Your task to perform on an android device: turn on bluetooth scan Image 0: 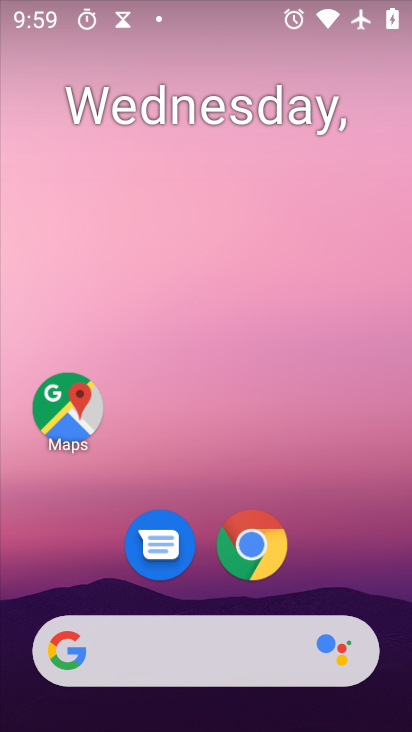
Step 0: press home button
Your task to perform on an android device: turn on bluetooth scan Image 1: 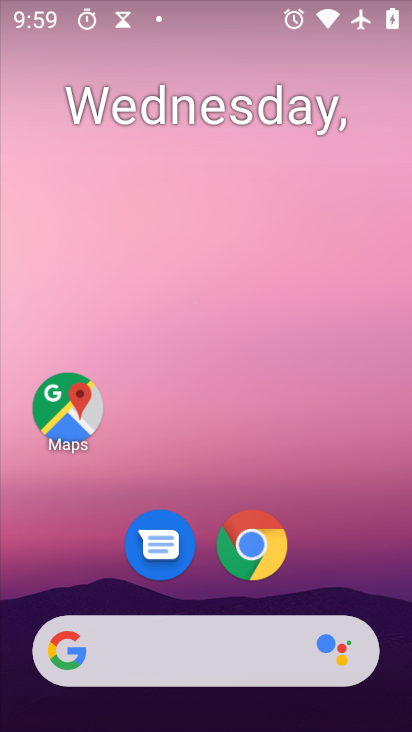
Step 1: drag from (173, 646) to (299, 120)
Your task to perform on an android device: turn on bluetooth scan Image 2: 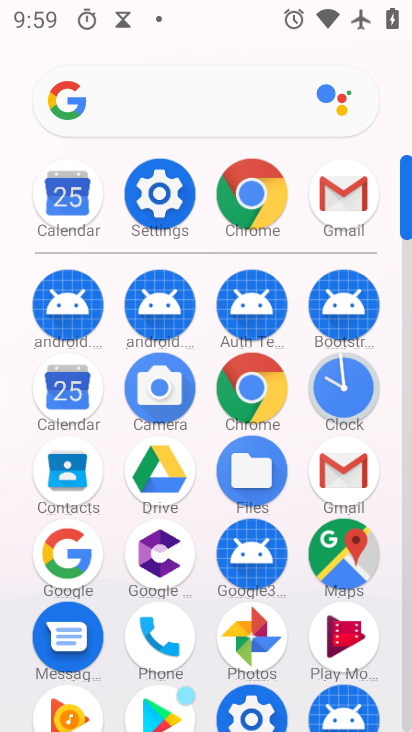
Step 2: click (168, 198)
Your task to perform on an android device: turn on bluetooth scan Image 3: 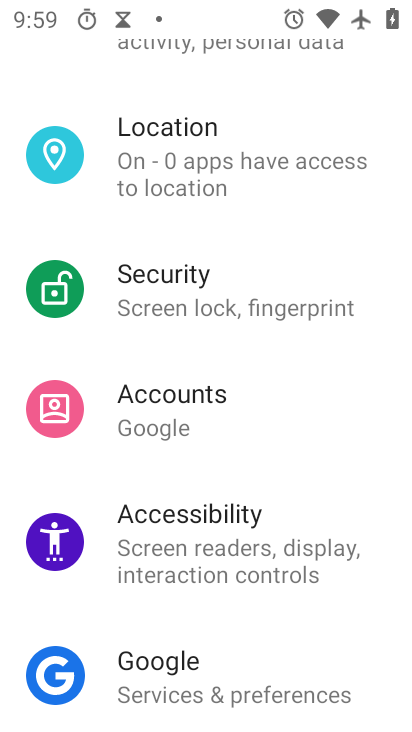
Step 3: click (210, 164)
Your task to perform on an android device: turn on bluetooth scan Image 4: 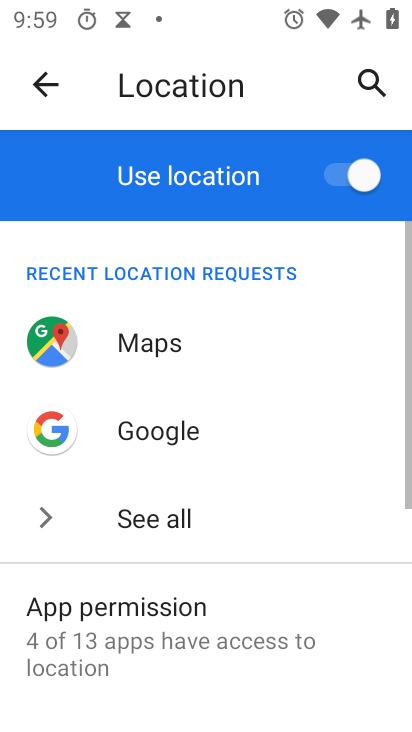
Step 4: drag from (271, 473) to (384, 57)
Your task to perform on an android device: turn on bluetooth scan Image 5: 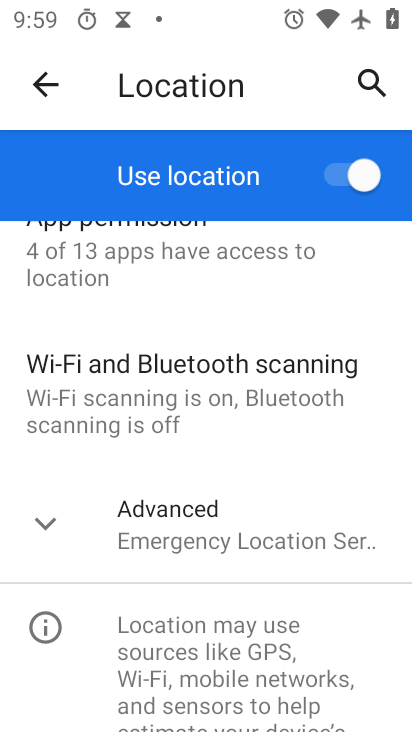
Step 5: click (213, 530)
Your task to perform on an android device: turn on bluetooth scan Image 6: 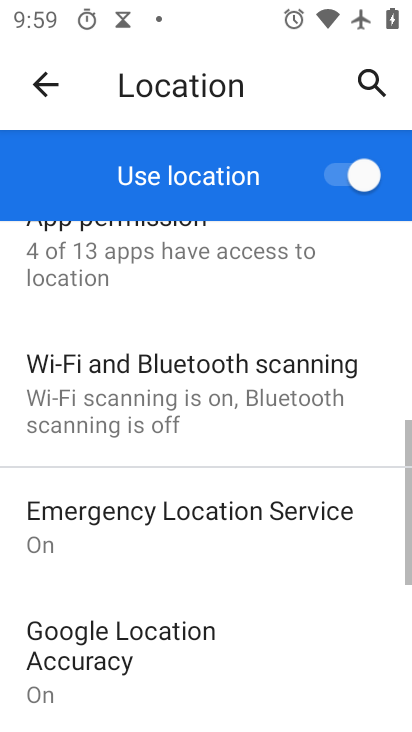
Step 6: click (214, 382)
Your task to perform on an android device: turn on bluetooth scan Image 7: 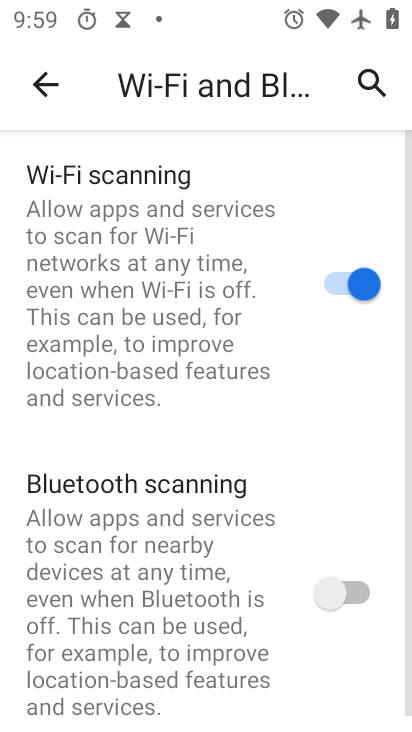
Step 7: click (357, 596)
Your task to perform on an android device: turn on bluetooth scan Image 8: 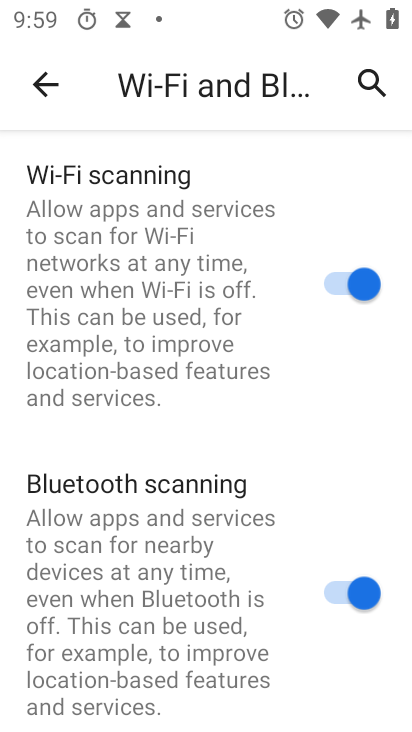
Step 8: task complete